Your task to perform on an android device: change keyboard looks Image 0: 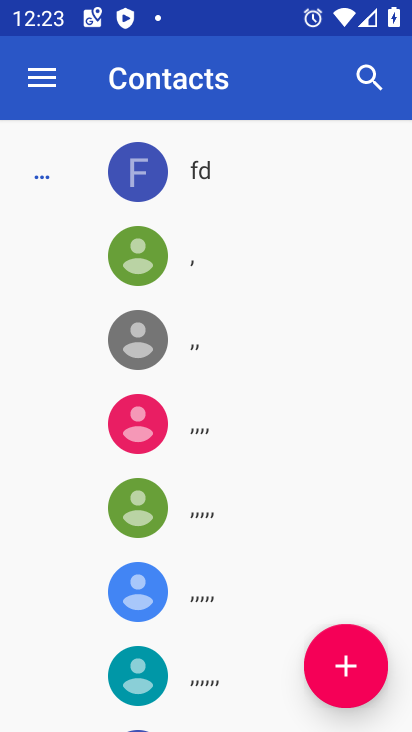
Step 0: press home button
Your task to perform on an android device: change keyboard looks Image 1: 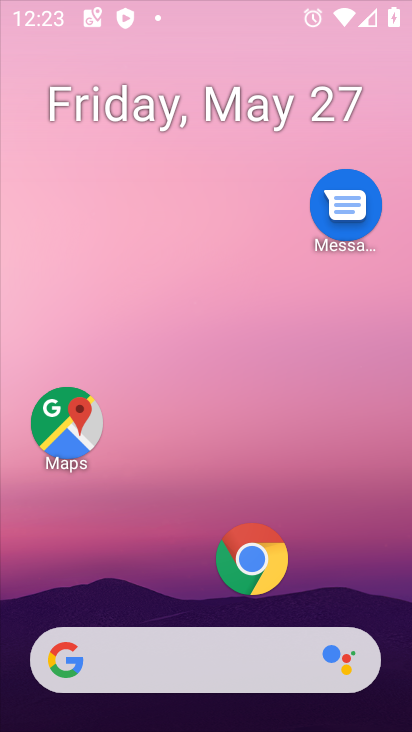
Step 1: drag from (193, 579) to (296, 1)
Your task to perform on an android device: change keyboard looks Image 2: 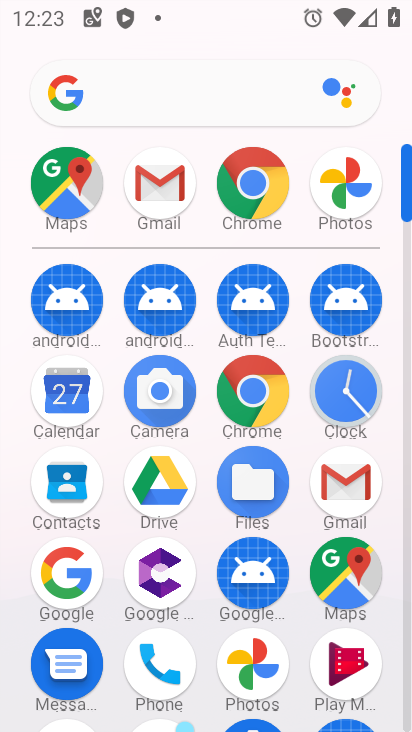
Step 2: drag from (201, 426) to (311, 0)
Your task to perform on an android device: change keyboard looks Image 3: 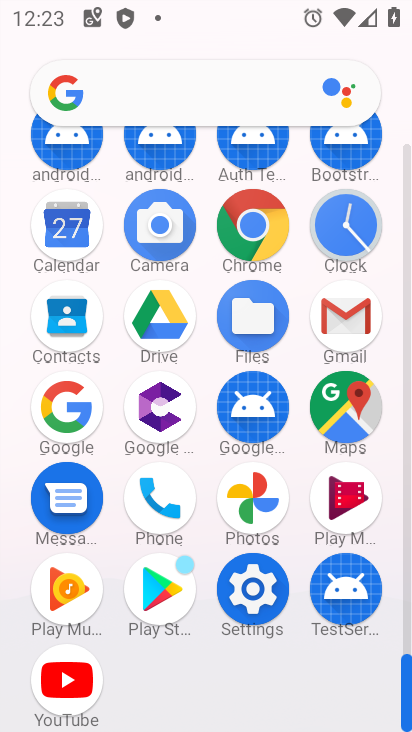
Step 3: click (253, 603)
Your task to perform on an android device: change keyboard looks Image 4: 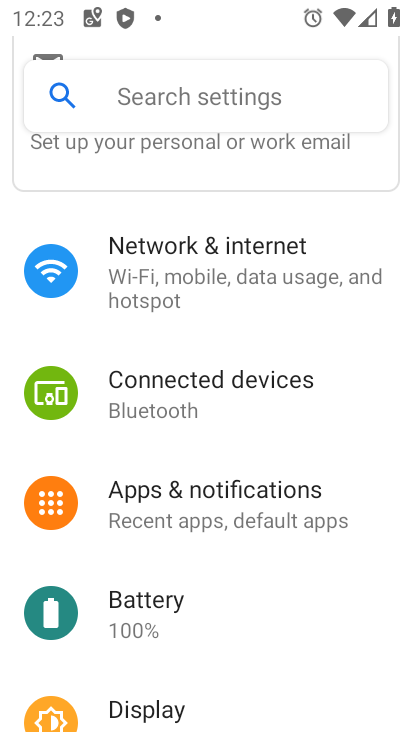
Step 4: drag from (195, 536) to (200, 35)
Your task to perform on an android device: change keyboard looks Image 5: 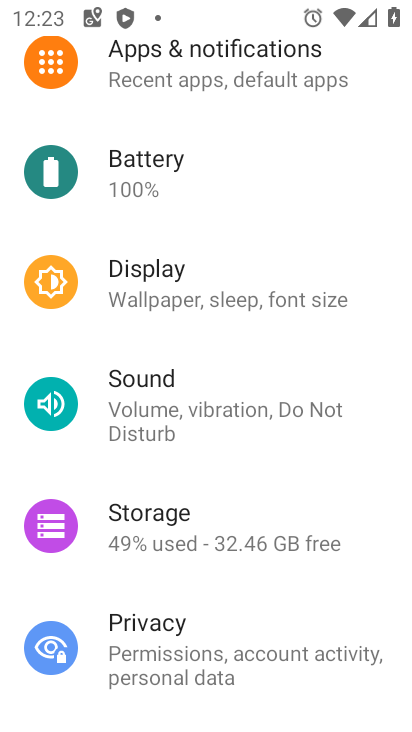
Step 5: drag from (158, 476) to (161, 226)
Your task to perform on an android device: change keyboard looks Image 6: 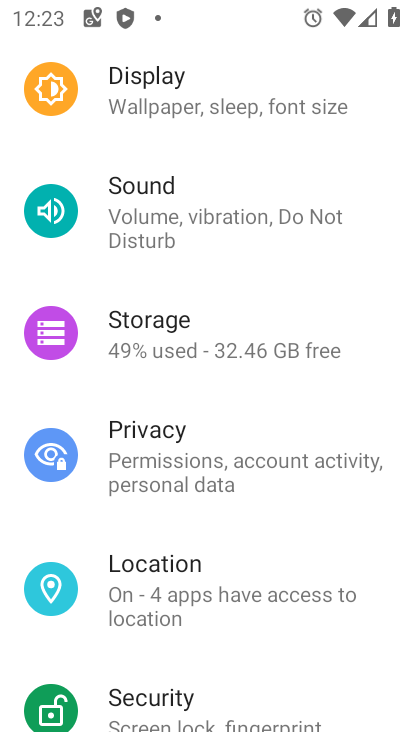
Step 6: drag from (156, 527) to (173, 38)
Your task to perform on an android device: change keyboard looks Image 7: 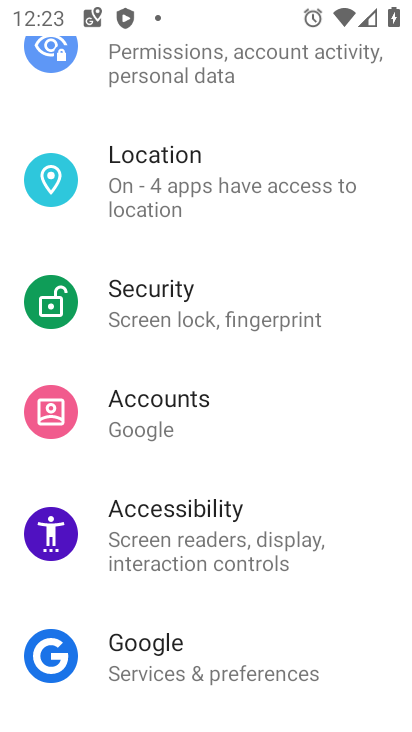
Step 7: drag from (171, 570) to (216, 52)
Your task to perform on an android device: change keyboard looks Image 8: 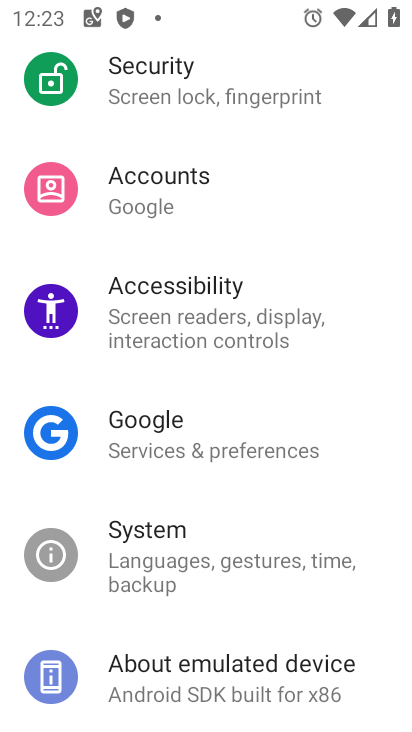
Step 8: click (200, 557)
Your task to perform on an android device: change keyboard looks Image 9: 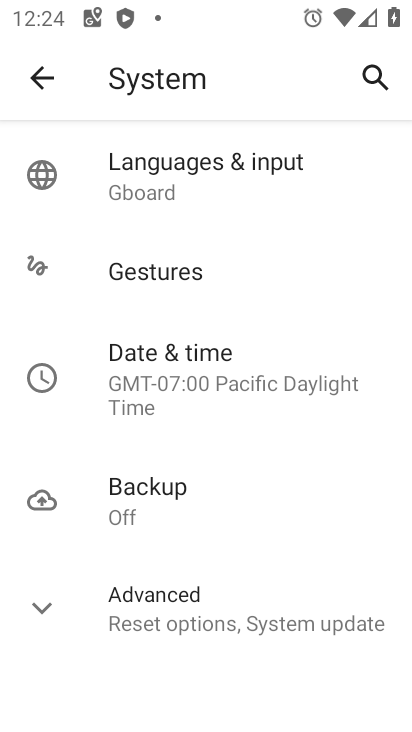
Step 9: click (217, 174)
Your task to perform on an android device: change keyboard looks Image 10: 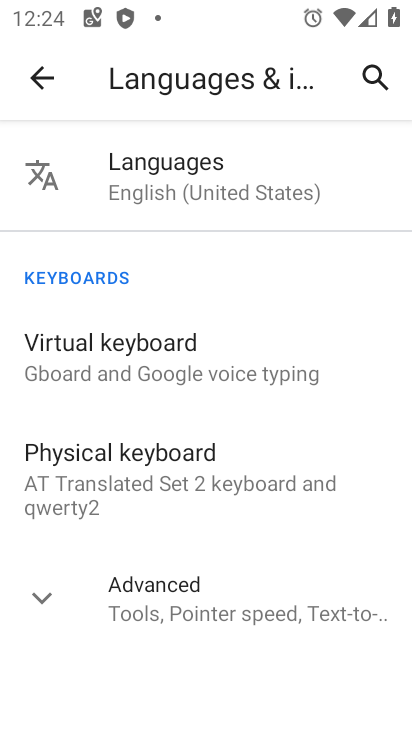
Step 10: click (173, 381)
Your task to perform on an android device: change keyboard looks Image 11: 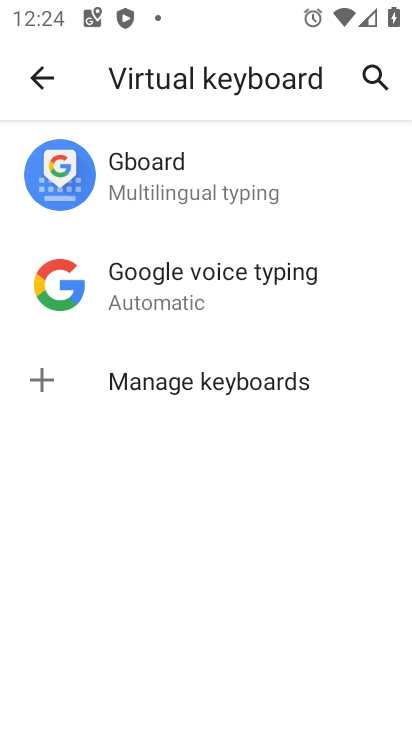
Step 11: click (210, 179)
Your task to perform on an android device: change keyboard looks Image 12: 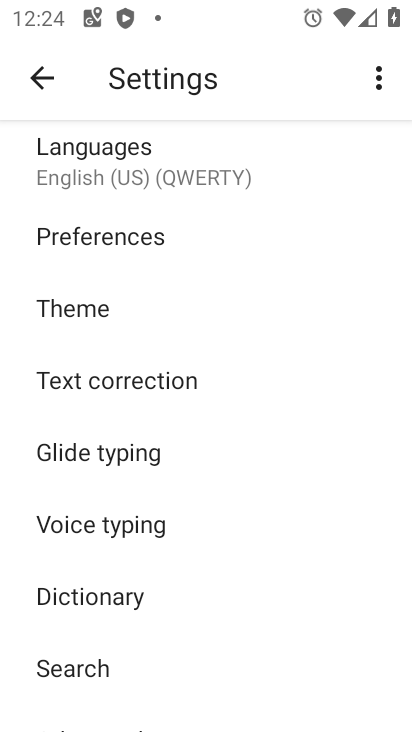
Step 12: click (119, 289)
Your task to perform on an android device: change keyboard looks Image 13: 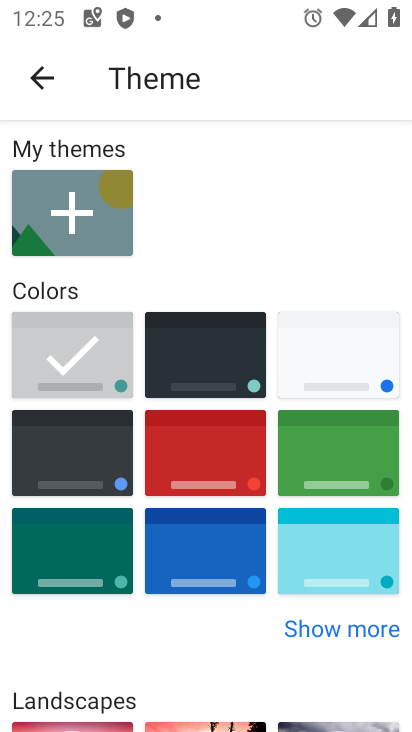
Step 13: click (233, 359)
Your task to perform on an android device: change keyboard looks Image 14: 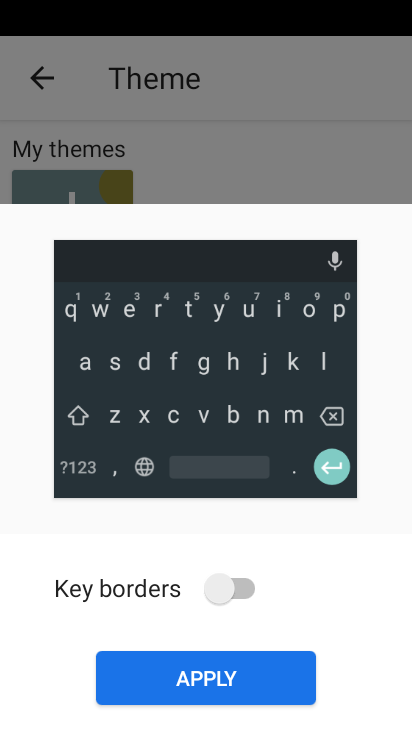
Step 14: click (200, 681)
Your task to perform on an android device: change keyboard looks Image 15: 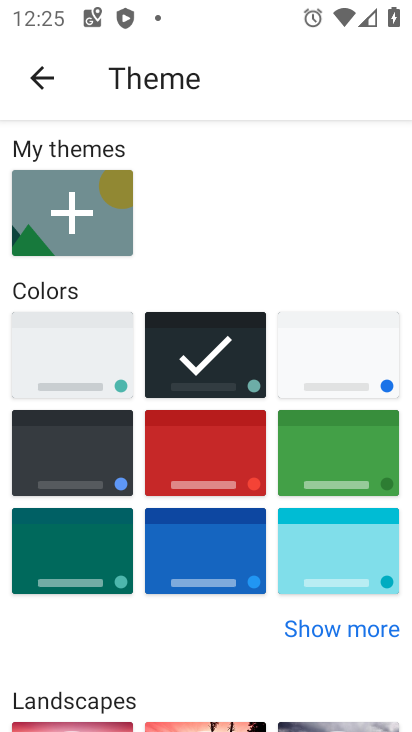
Step 15: task complete